Your task to perform on an android device: Check the weather Image 0: 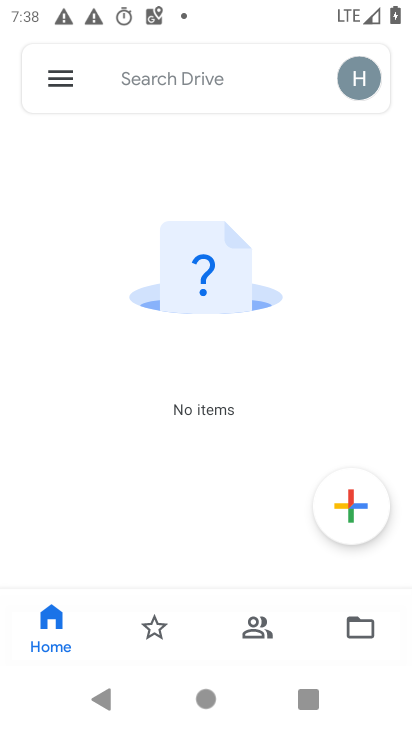
Step 0: press home button
Your task to perform on an android device: Check the weather Image 1: 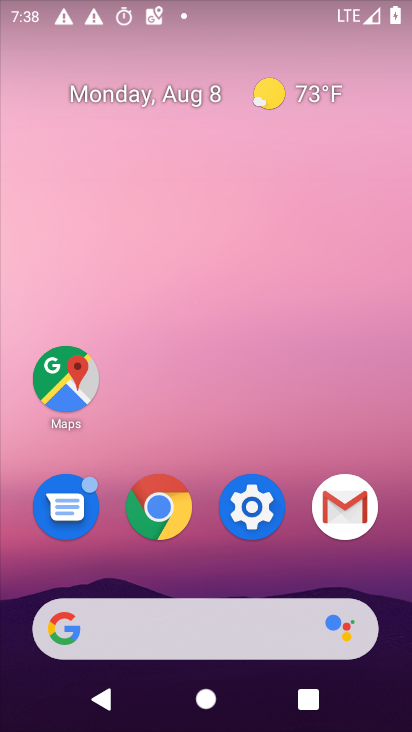
Step 1: click (217, 632)
Your task to perform on an android device: Check the weather Image 2: 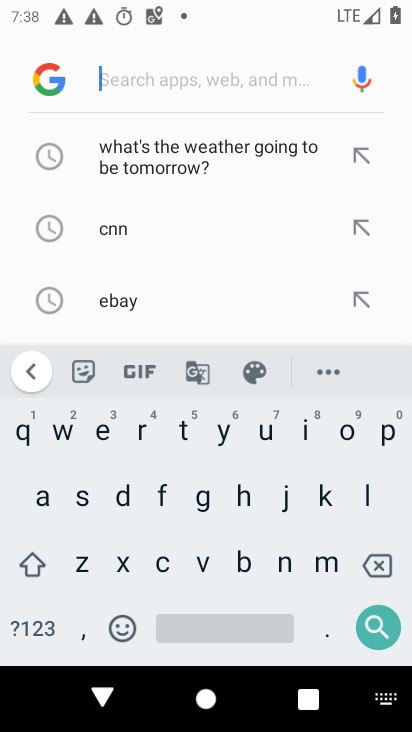
Step 2: click (55, 440)
Your task to perform on an android device: Check the weather Image 3: 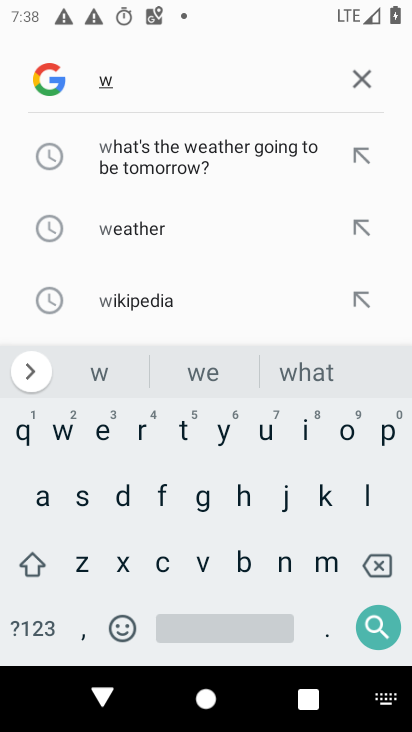
Step 3: click (157, 236)
Your task to perform on an android device: Check the weather Image 4: 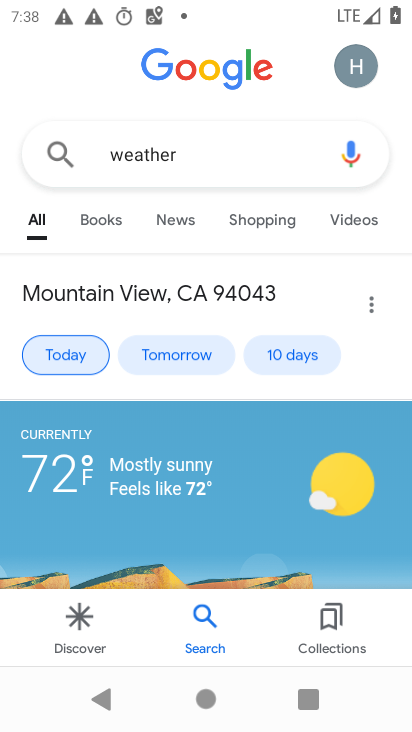
Step 4: task complete